Your task to perform on an android device: read, delete, or share a saved page in the chrome app Image 0: 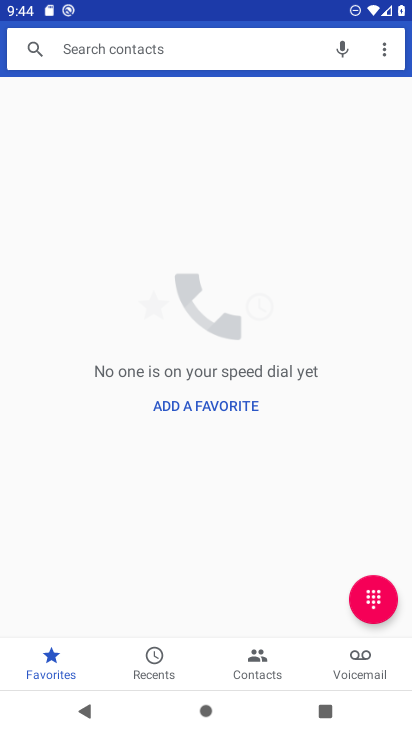
Step 0: press home button
Your task to perform on an android device: read, delete, or share a saved page in the chrome app Image 1: 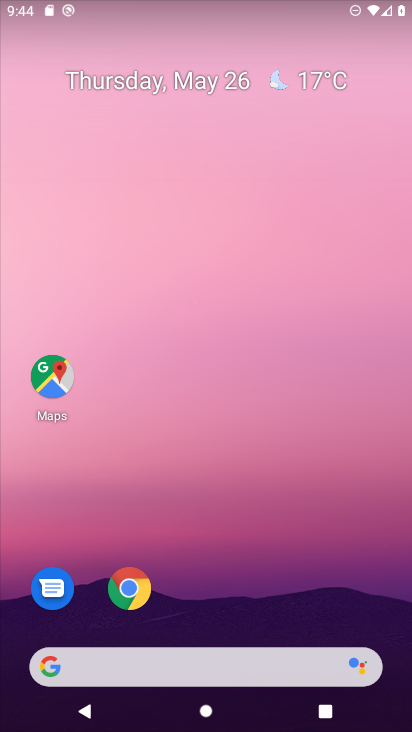
Step 1: click (127, 589)
Your task to perform on an android device: read, delete, or share a saved page in the chrome app Image 2: 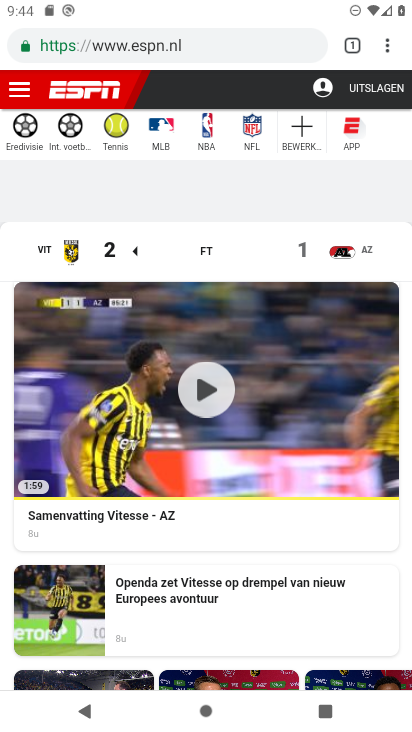
Step 2: click (383, 57)
Your task to perform on an android device: read, delete, or share a saved page in the chrome app Image 3: 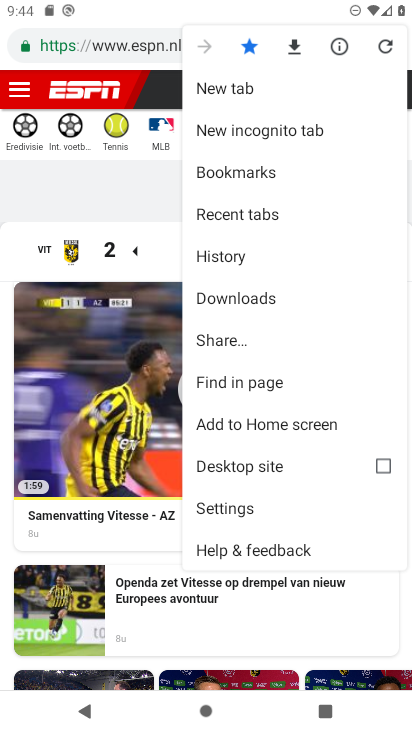
Step 3: click (240, 288)
Your task to perform on an android device: read, delete, or share a saved page in the chrome app Image 4: 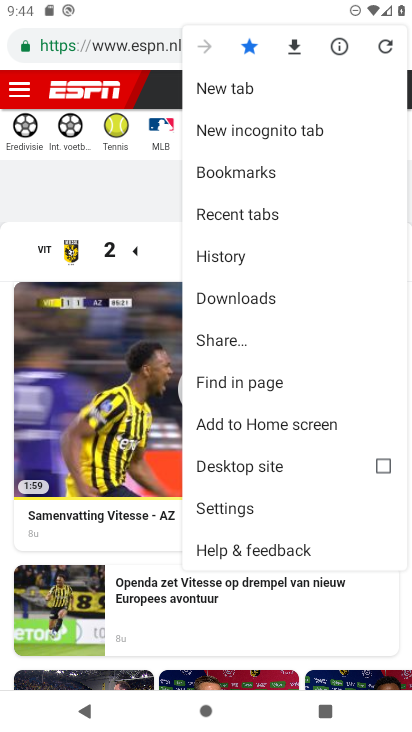
Step 4: click (240, 288)
Your task to perform on an android device: read, delete, or share a saved page in the chrome app Image 5: 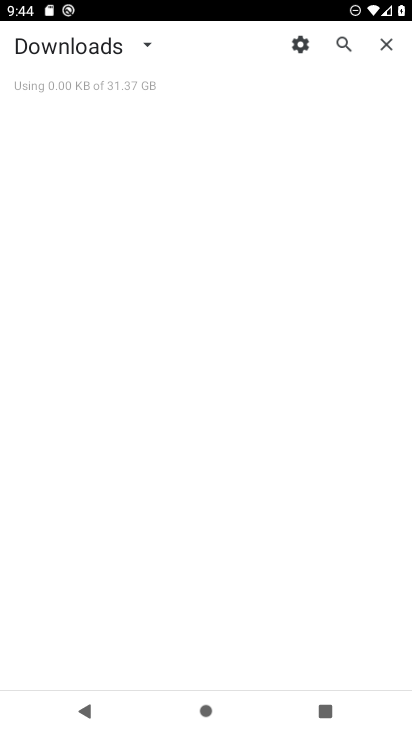
Step 5: click (148, 46)
Your task to perform on an android device: read, delete, or share a saved page in the chrome app Image 6: 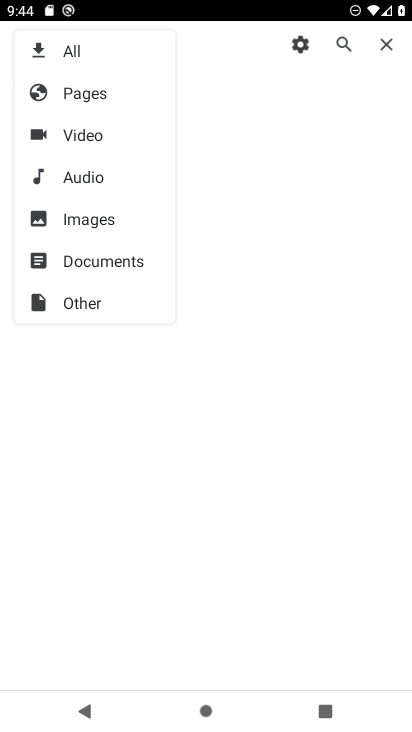
Step 6: click (87, 87)
Your task to perform on an android device: read, delete, or share a saved page in the chrome app Image 7: 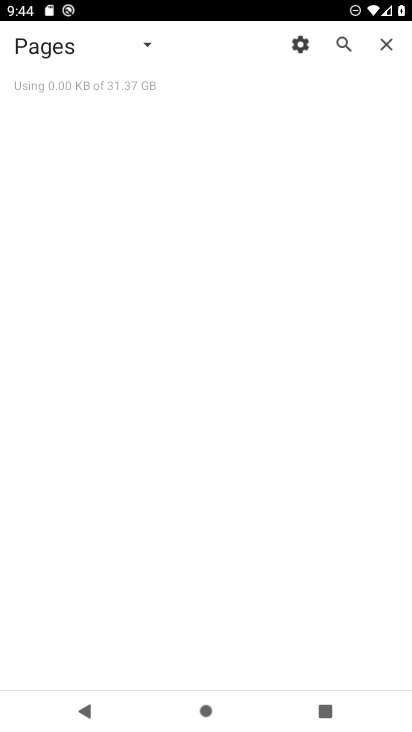
Step 7: task complete